Your task to perform on an android device: See recent photos Image 0: 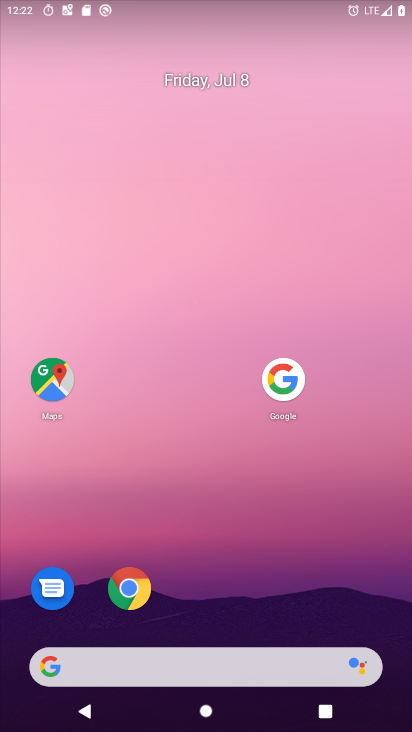
Step 0: drag from (179, 658) to (298, 57)
Your task to perform on an android device: See recent photos Image 1: 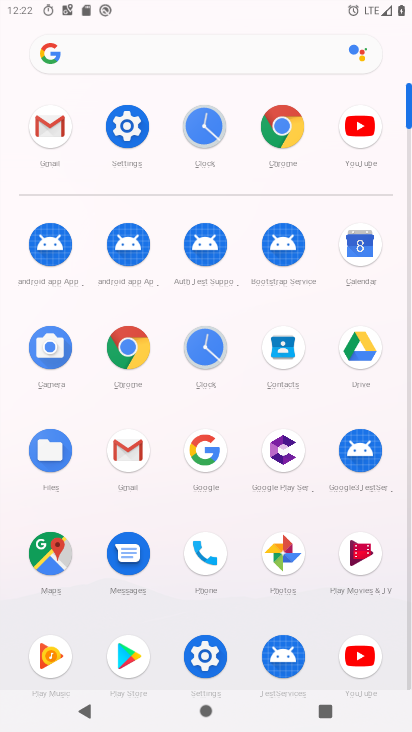
Step 1: click (279, 544)
Your task to perform on an android device: See recent photos Image 2: 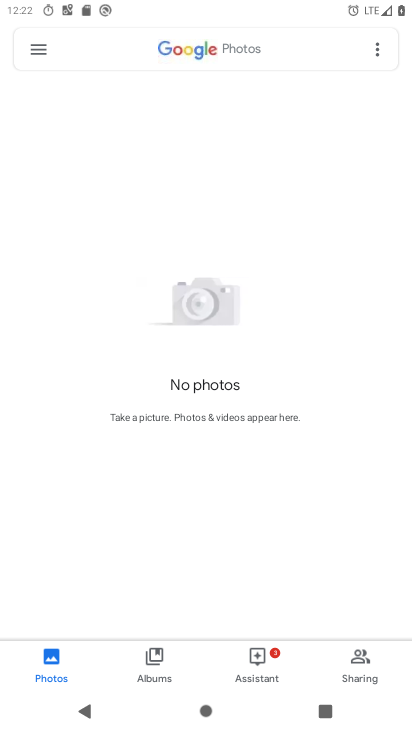
Step 2: task complete